Your task to perform on an android device: Go to sound settings Image 0: 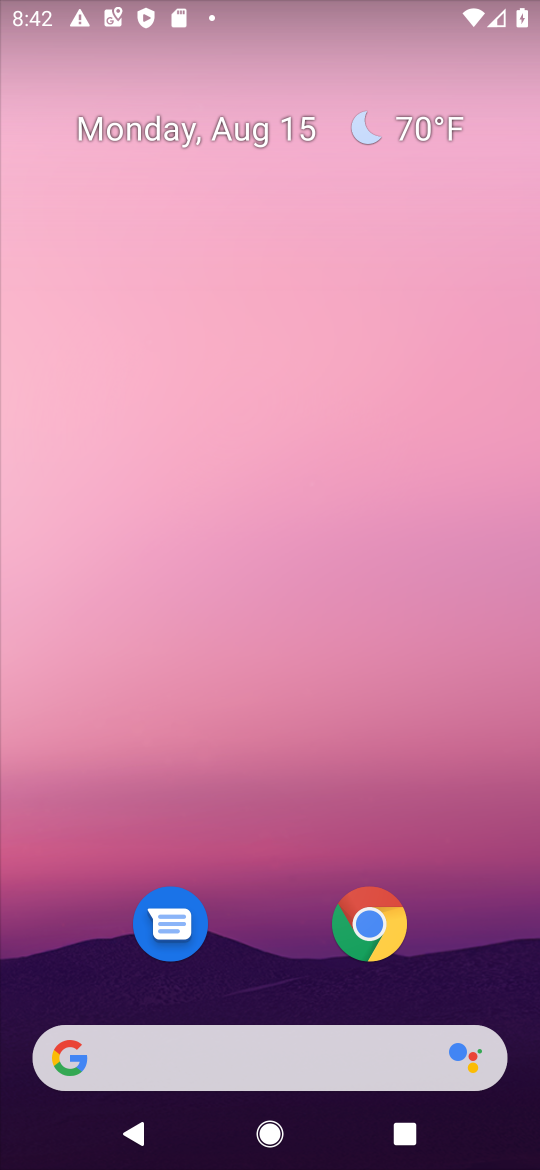
Step 0: drag from (491, 944) to (445, 403)
Your task to perform on an android device: Go to sound settings Image 1: 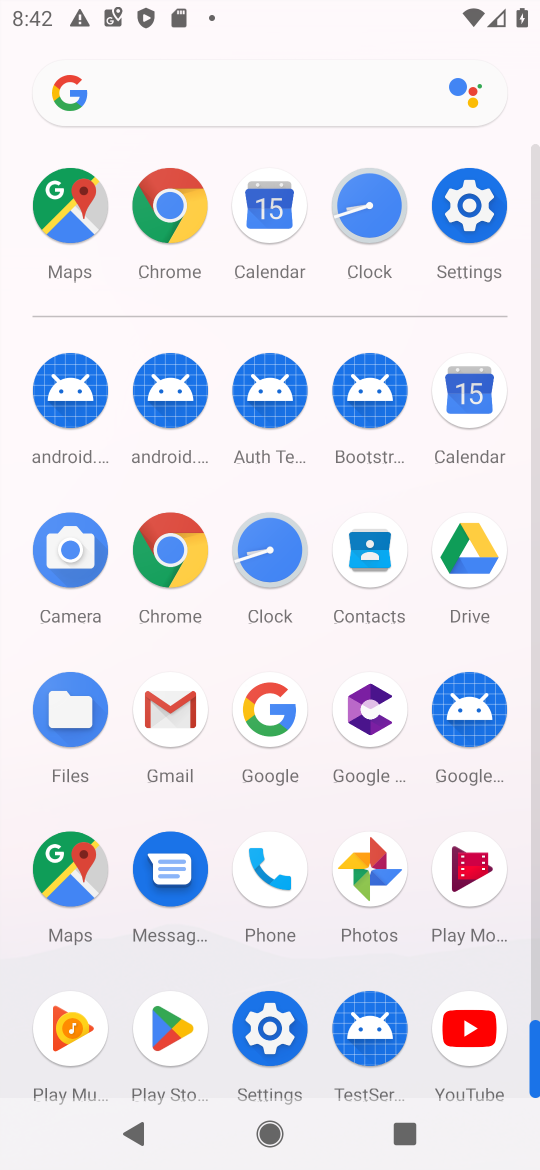
Step 1: click (270, 1030)
Your task to perform on an android device: Go to sound settings Image 2: 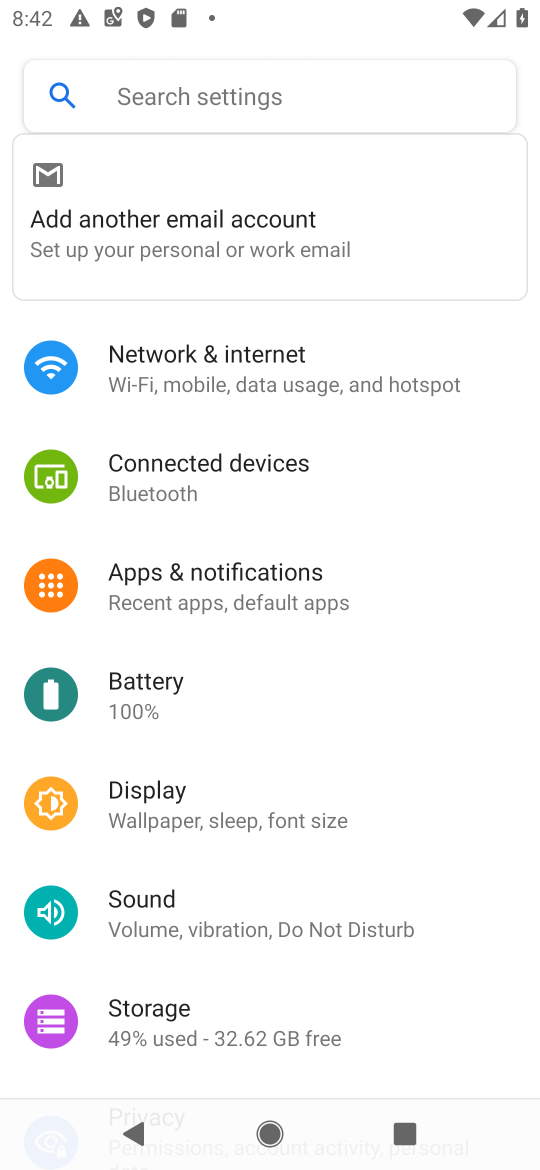
Step 2: click (166, 891)
Your task to perform on an android device: Go to sound settings Image 3: 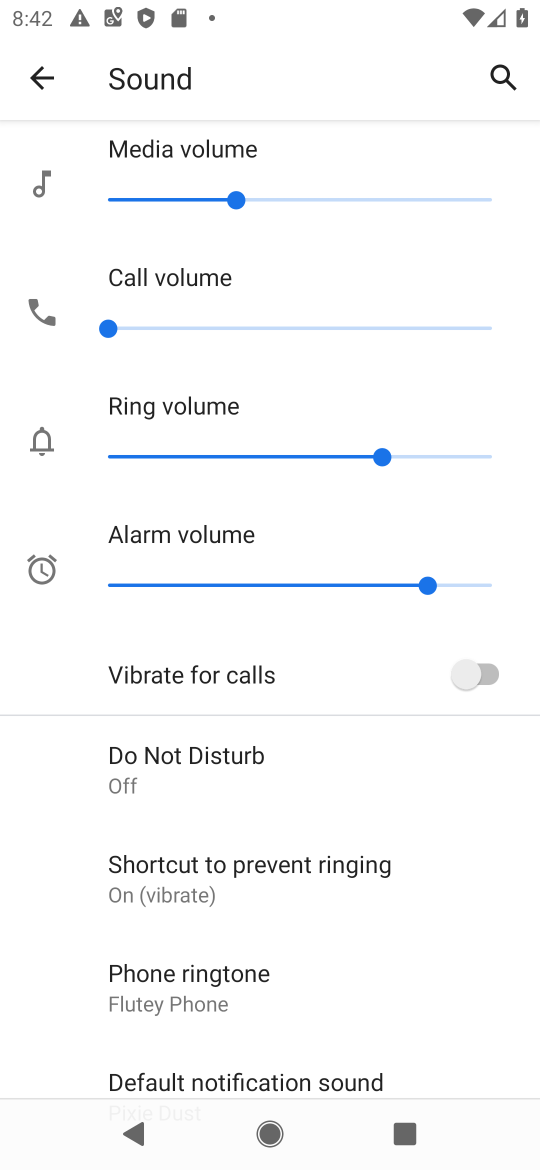
Step 3: task complete